Your task to perform on an android device: Search for pizza restaurants on Maps Image 0: 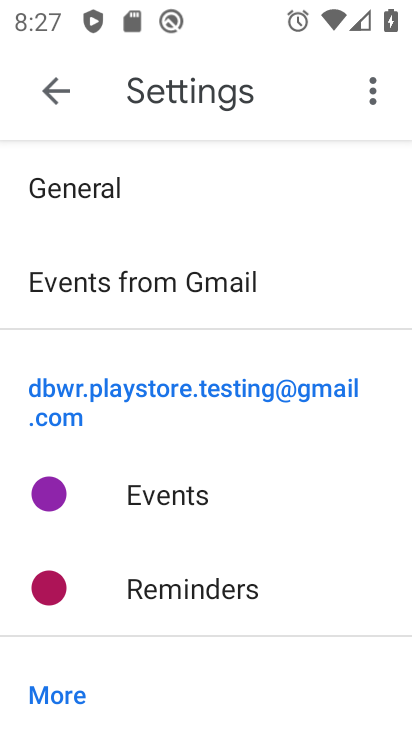
Step 0: press home button
Your task to perform on an android device: Search for pizza restaurants on Maps Image 1: 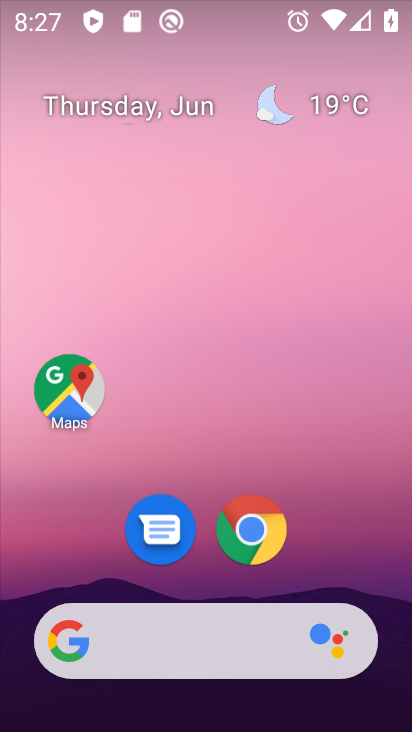
Step 1: click (77, 380)
Your task to perform on an android device: Search for pizza restaurants on Maps Image 2: 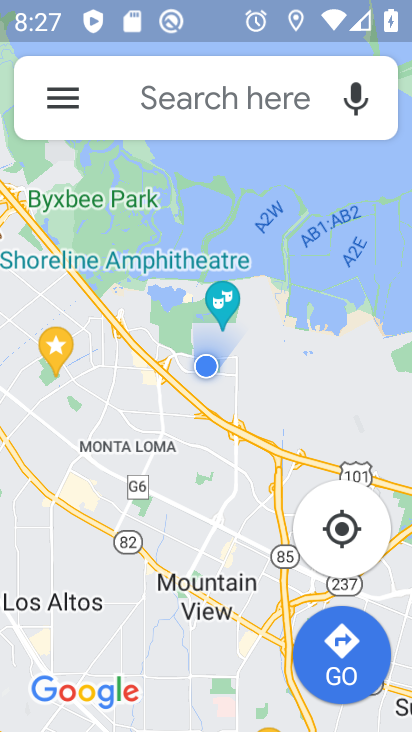
Step 2: click (154, 103)
Your task to perform on an android device: Search for pizza restaurants on Maps Image 3: 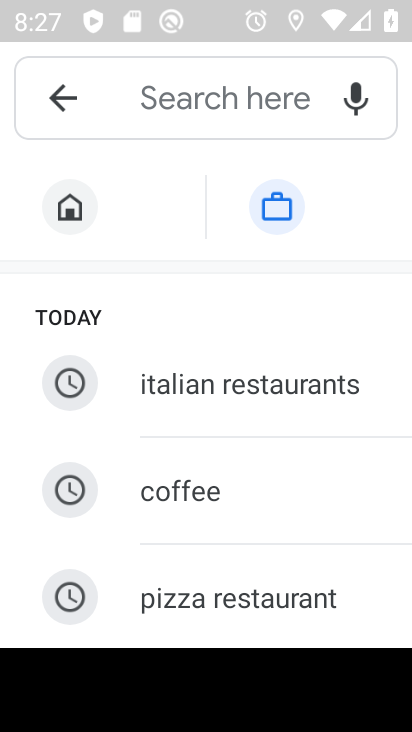
Step 3: type "pizza restaurants"
Your task to perform on an android device: Search for pizza restaurants on Maps Image 4: 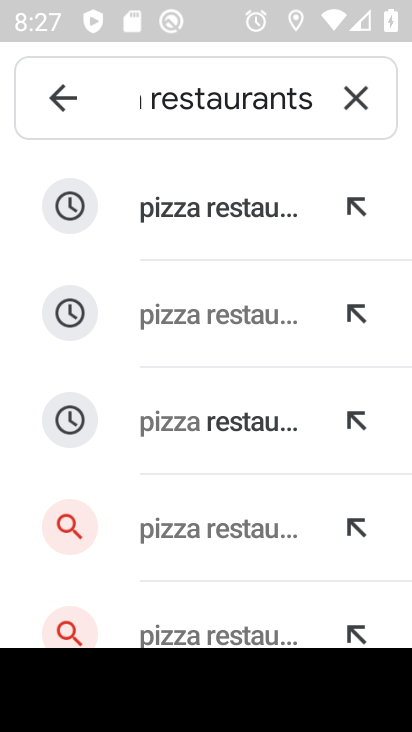
Step 4: click (234, 212)
Your task to perform on an android device: Search for pizza restaurants on Maps Image 5: 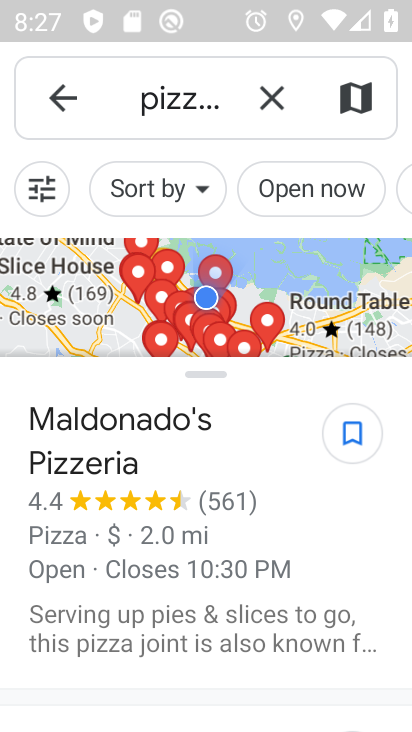
Step 5: task complete